Your task to perform on an android device: change the clock display to analog Image 0: 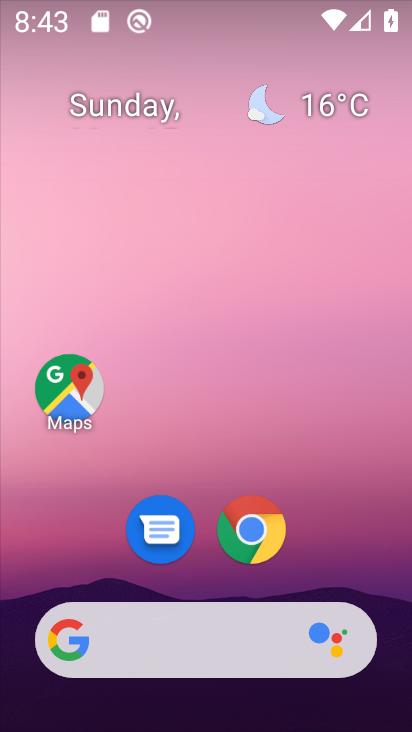
Step 0: drag from (73, 603) to (254, 106)
Your task to perform on an android device: change the clock display to analog Image 1: 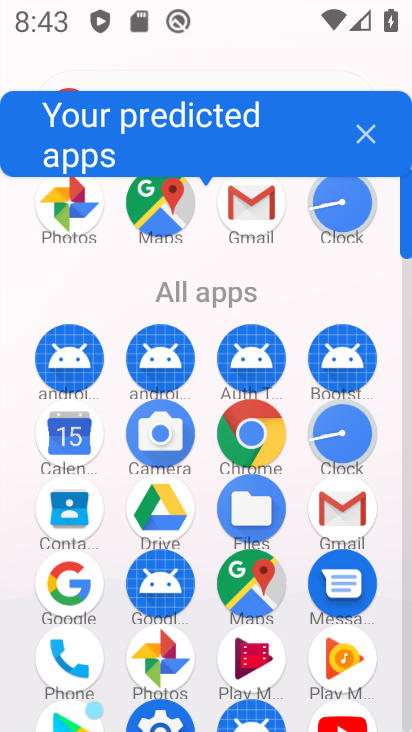
Step 1: click (358, 455)
Your task to perform on an android device: change the clock display to analog Image 2: 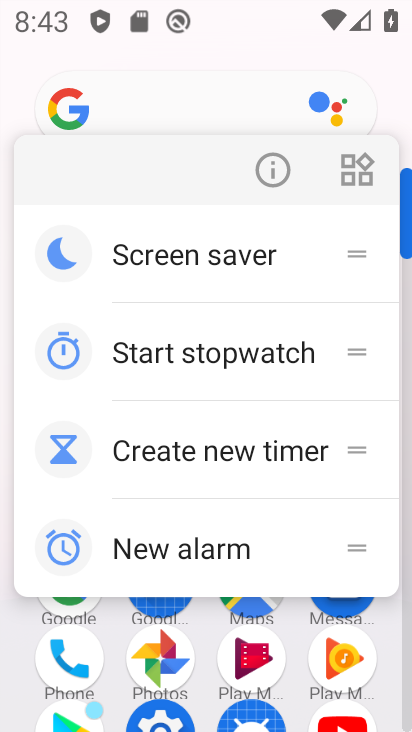
Step 2: press back button
Your task to perform on an android device: change the clock display to analog Image 3: 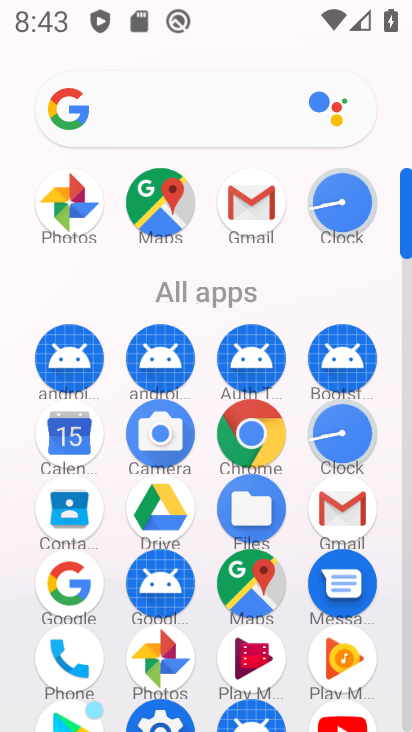
Step 3: click (320, 430)
Your task to perform on an android device: change the clock display to analog Image 4: 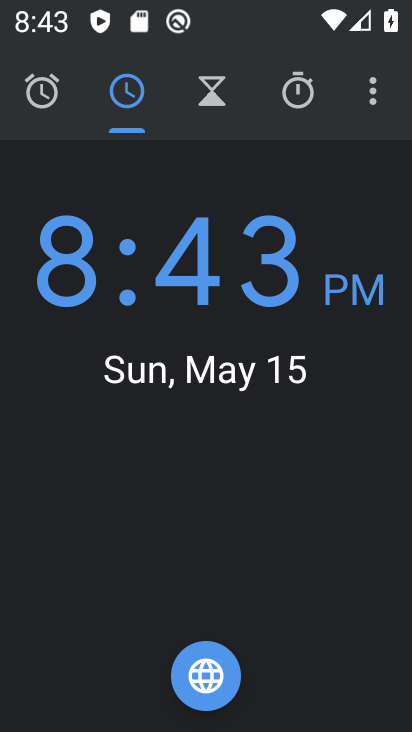
Step 4: click (377, 110)
Your task to perform on an android device: change the clock display to analog Image 5: 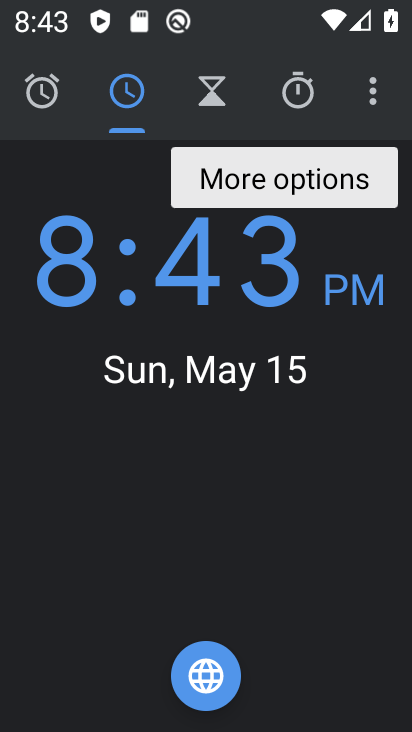
Step 5: click (371, 92)
Your task to perform on an android device: change the clock display to analog Image 6: 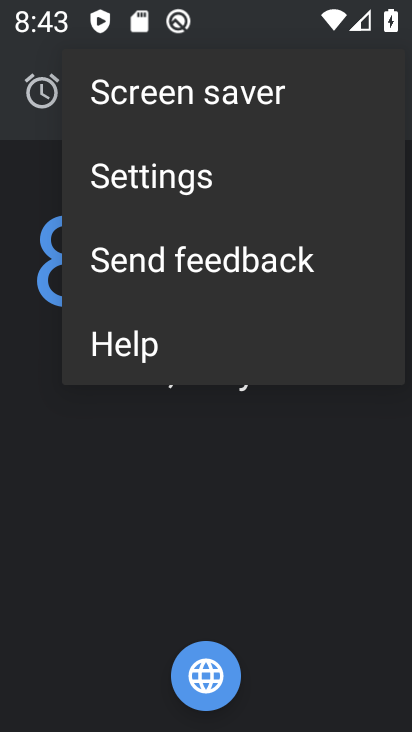
Step 6: click (340, 179)
Your task to perform on an android device: change the clock display to analog Image 7: 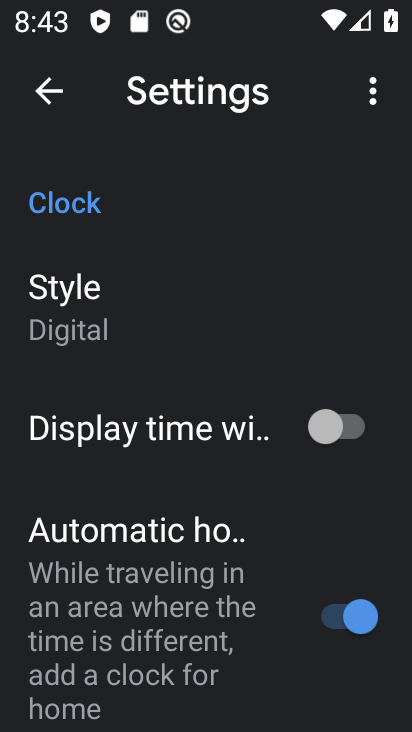
Step 7: click (217, 306)
Your task to perform on an android device: change the clock display to analog Image 8: 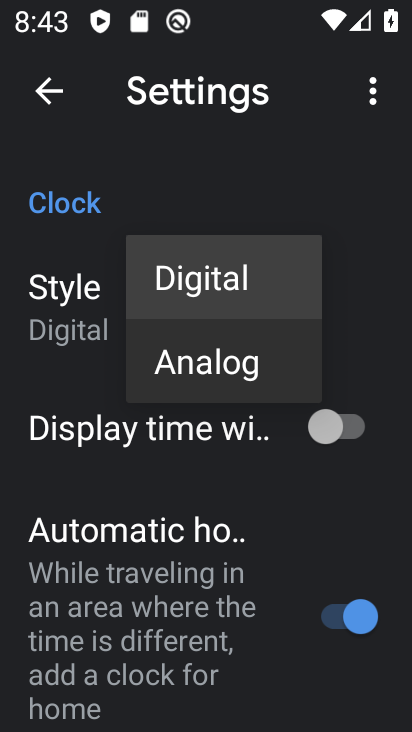
Step 8: click (250, 371)
Your task to perform on an android device: change the clock display to analog Image 9: 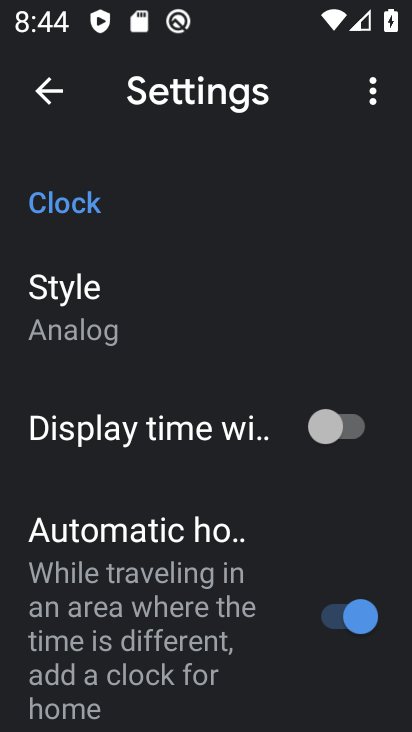
Step 9: task complete